Your task to perform on an android device: change the clock display to show seconds Image 0: 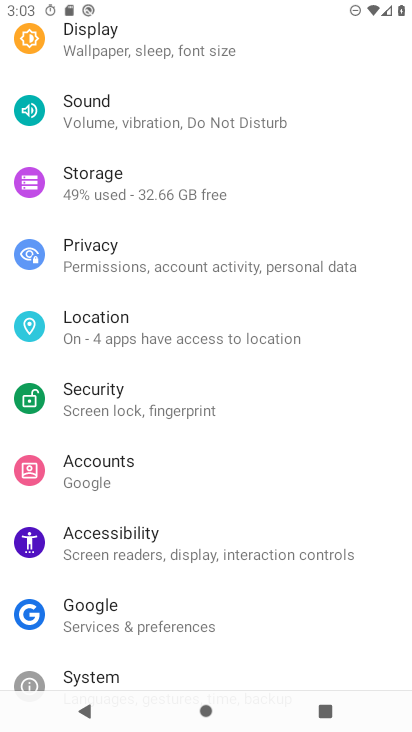
Step 0: press home button
Your task to perform on an android device: change the clock display to show seconds Image 1: 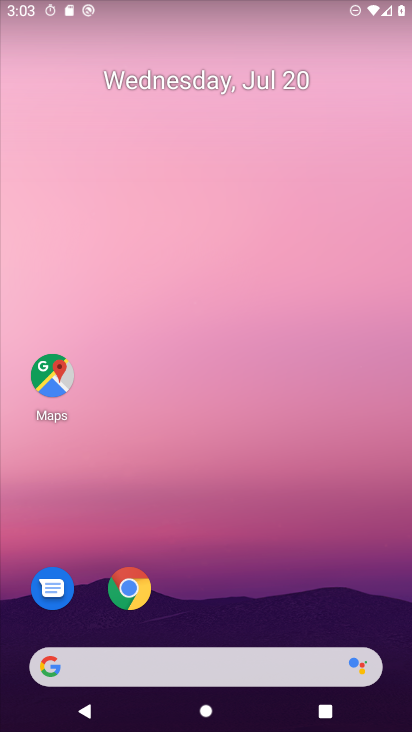
Step 1: drag from (194, 630) to (21, 26)
Your task to perform on an android device: change the clock display to show seconds Image 2: 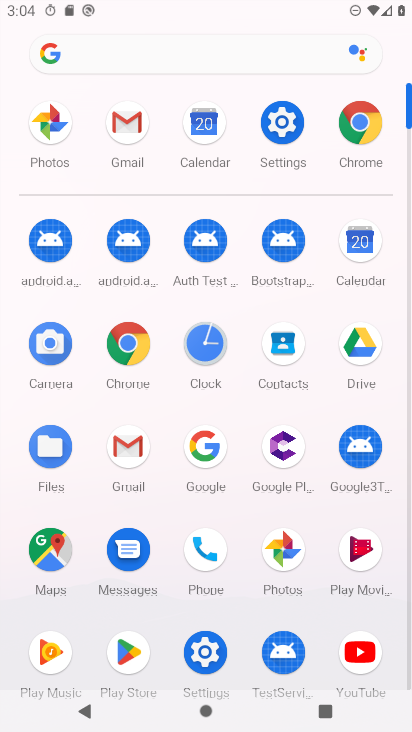
Step 2: click (195, 349)
Your task to perform on an android device: change the clock display to show seconds Image 3: 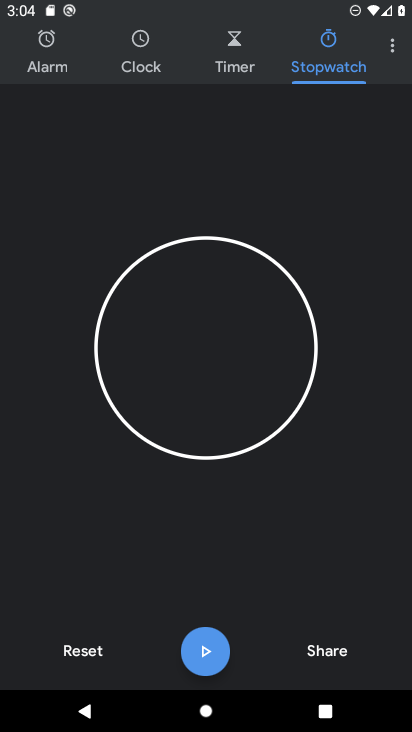
Step 3: click (401, 46)
Your task to perform on an android device: change the clock display to show seconds Image 4: 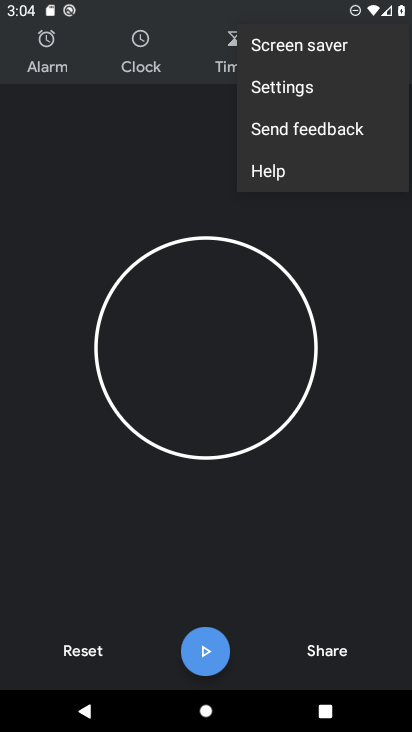
Step 4: click (308, 84)
Your task to perform on an android device: change the clock display to show seconds Image 5: 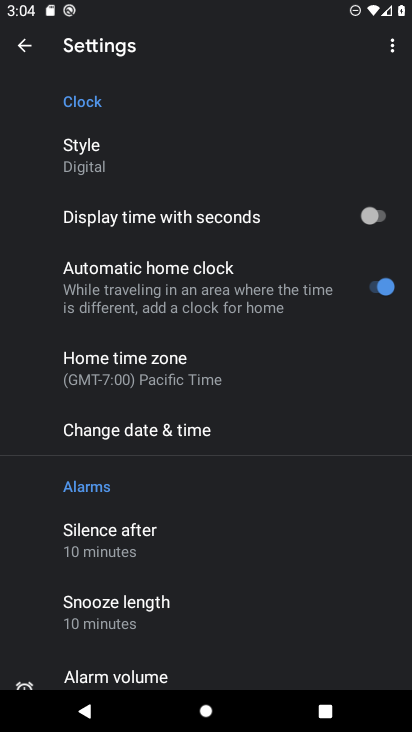
Step 5: click (371, 232)
Your task to perform on an android device: change the clock display to show seconds Image 6: 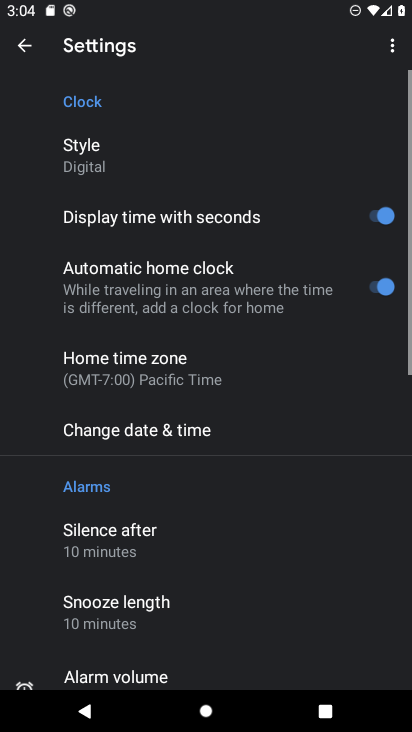
Step 6: task complete